Your task to perform on an android device: change notification settings in the gmail app Image 0: 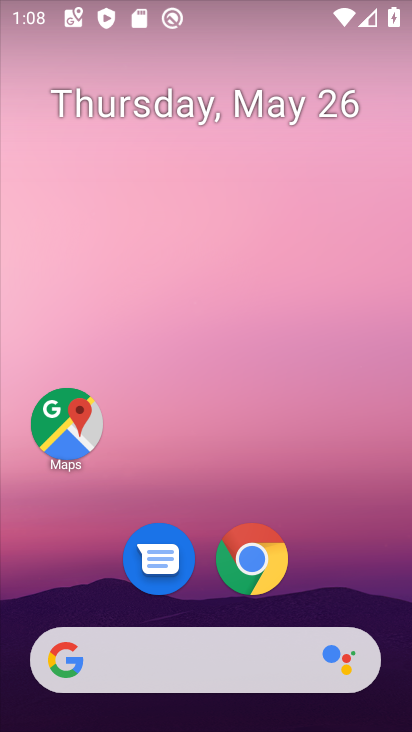
Step 0: drag from (185, 606) to (347, 74)
Your task to perform on an android device: change notification settings in the gmail app Image 1: 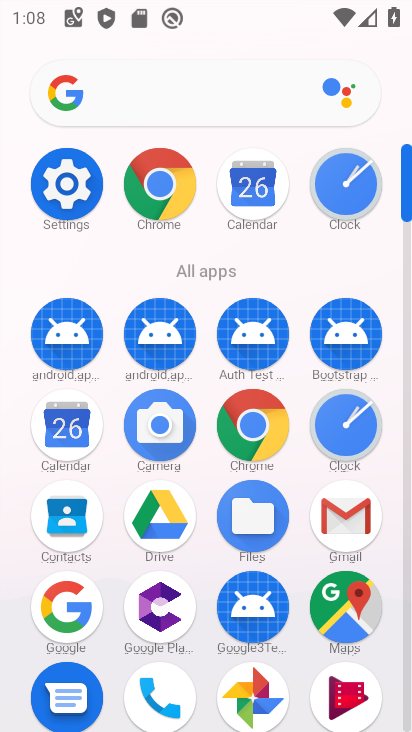
Step 1: click (358, 520)
Your task to perform on an android device: change notification settings in the gmail app Image 2: 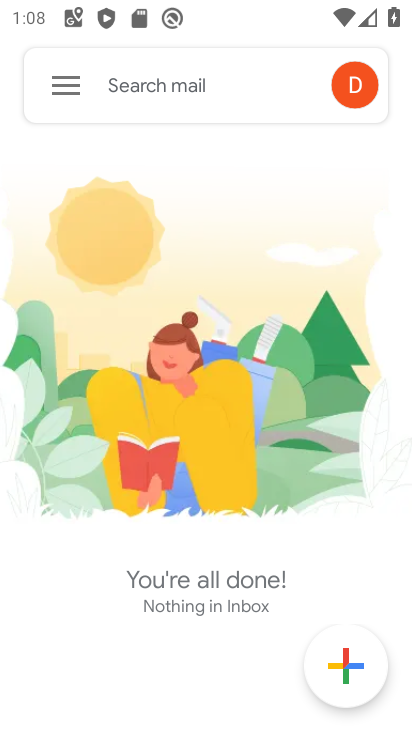
Step 2: click (66, 80)
Your task to perform on an android device: change notification settings in the gmail app Image 3: 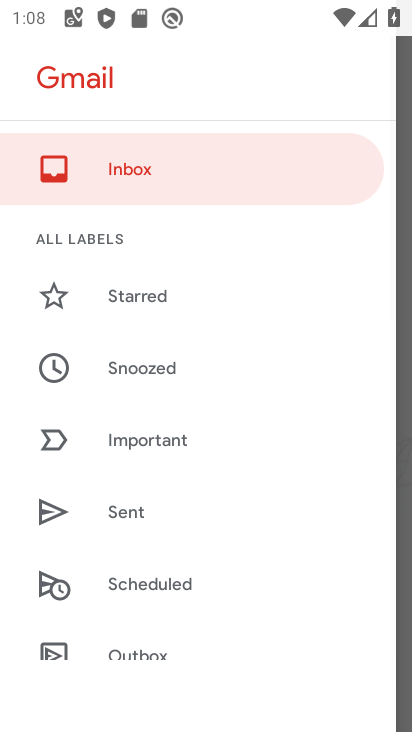
Step 3: drag from (209, 655) to (294, 164)
Your task to perform on an android device: change notification settings in the gmail app Image 4: 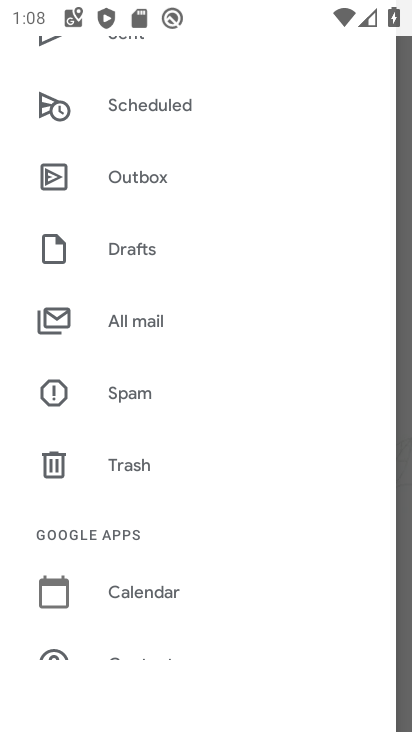
Step 4: drag from (221, 596) to (314, 201)
Your task to perform on an android device: change notification settings in the gmail app Image 5: 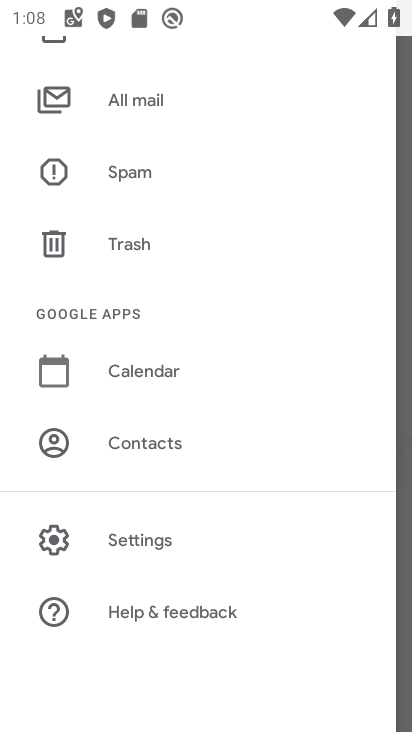
Step 5: click (154, 541)
Your task to perform on an android device: change notification settings in the gmail app Image 6: 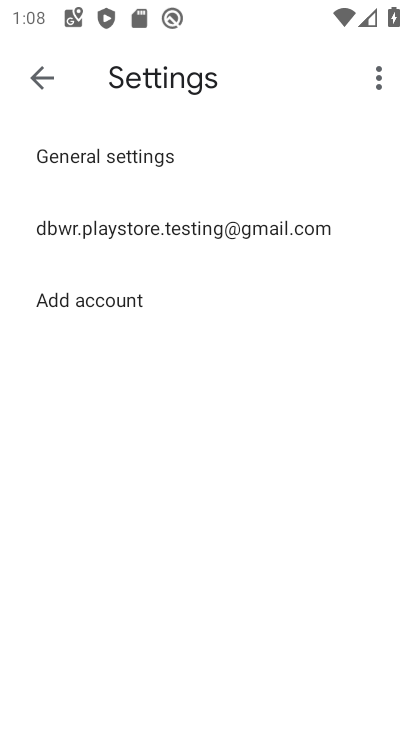
Step 6: click (219, 222)
Your task to perform on an android device: change notification settings in the gmail app Image 7: 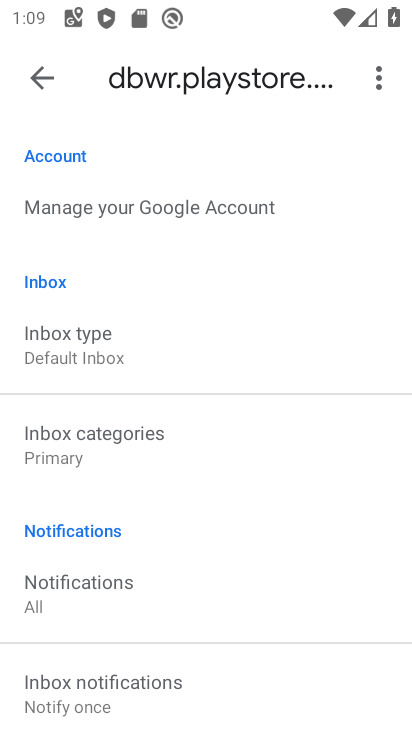
Step 7: click (61, 590)
Your task to perform on an android device: change notification settings in the gmail app Image 8: 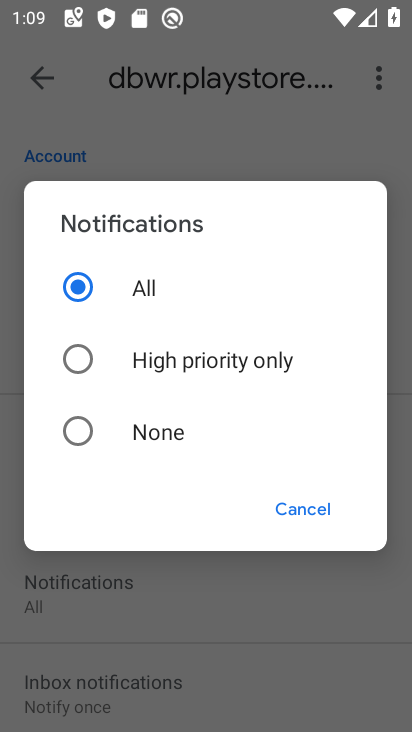
Step 8: click (78, 436)
Your task to perform on an android device: change notification settings in the gmail app Image 9: 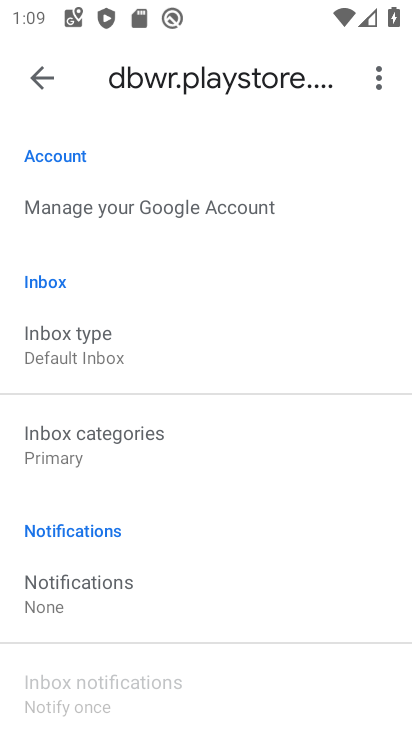
Step 9: task complete